Your task to perform on an android device: turn off priority inbox in the gmail app Image 0: 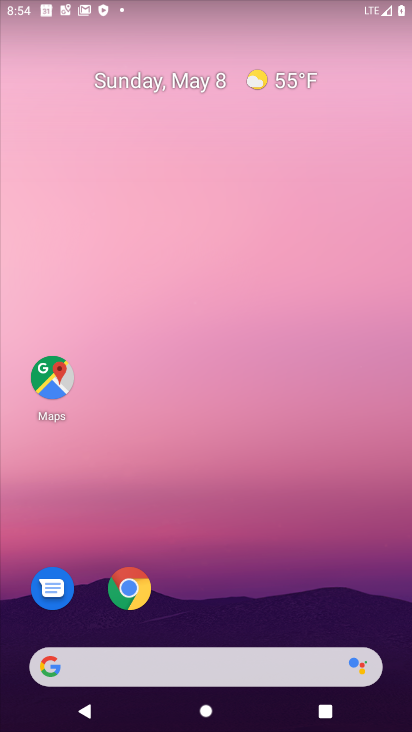
Step 0: drag from (312, 614) to (221, 59)
Your task to perform on an android device: turn off priority inbox in the gmail app Image 1: 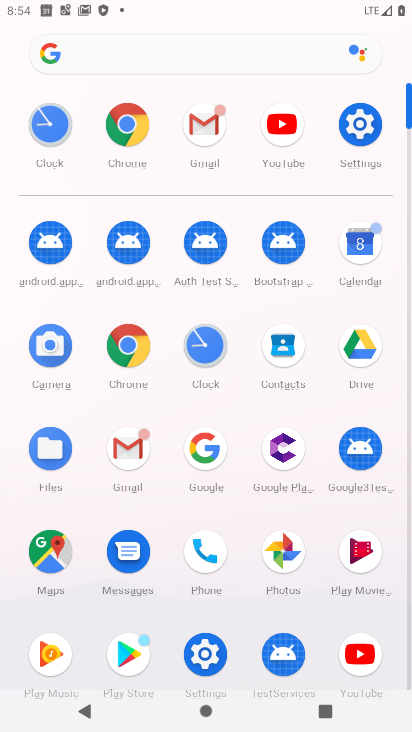
Step 1: click (131, 450)
Your task to perform on an android device: turn off priority inbox in the gmail app Image 2: 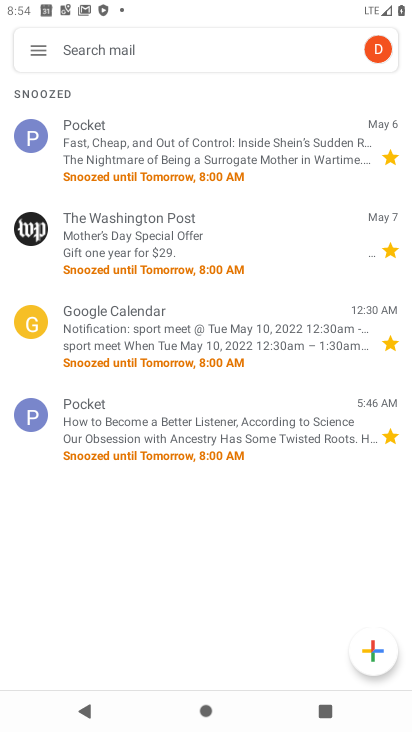
Step 2: click (30, 42)
Your task to perform on an android device: turn off priority inbox in the gmail app Image 3: 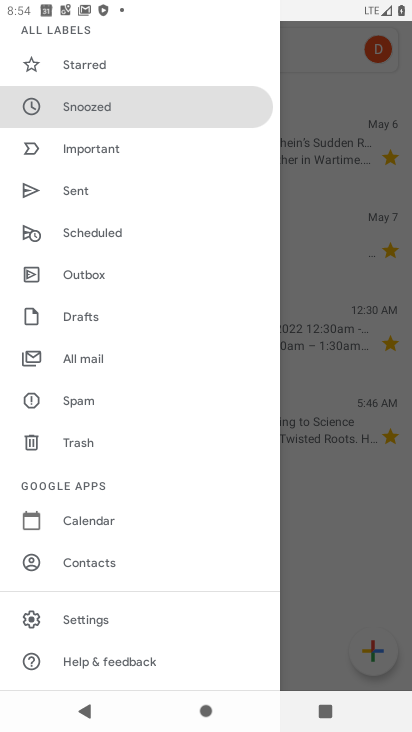
Step 3: click (125, 622)
Your task to perform on an android device: turn off priority inbox in the gmail app Image 4: 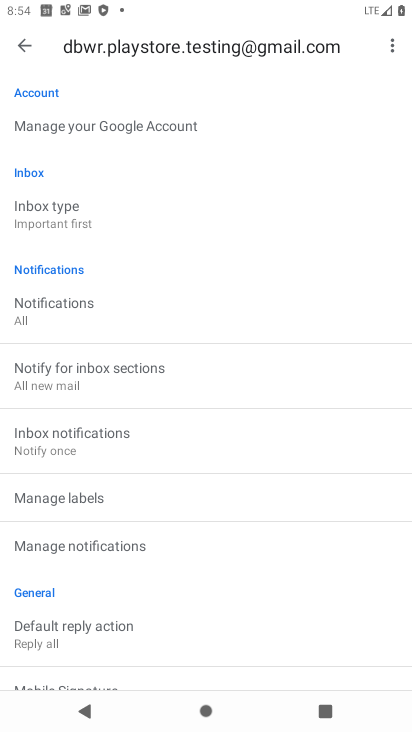
Step 4: click (105, 225)
Your task to perform on an android device: turn off priority inbox in the gmail app Image 5: 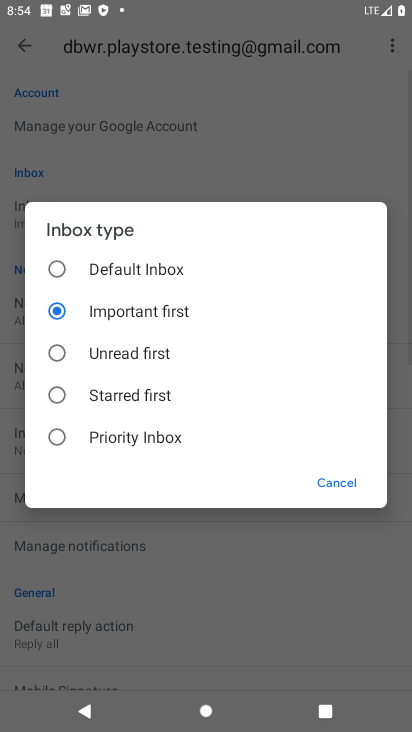
Step 5: click (169, 360)
Your task to perform on an android device: turn off priority inbox in the gmail app Image 6: 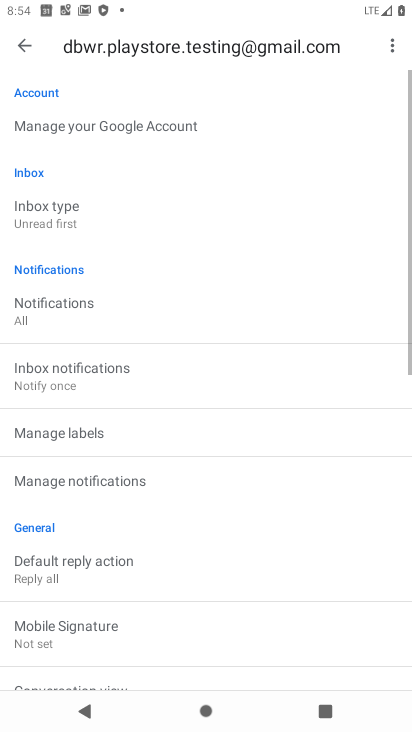
Step 6: task complete